Your task to perform on an android device: read, delete, or share a saved page in the chrome app Image 0: 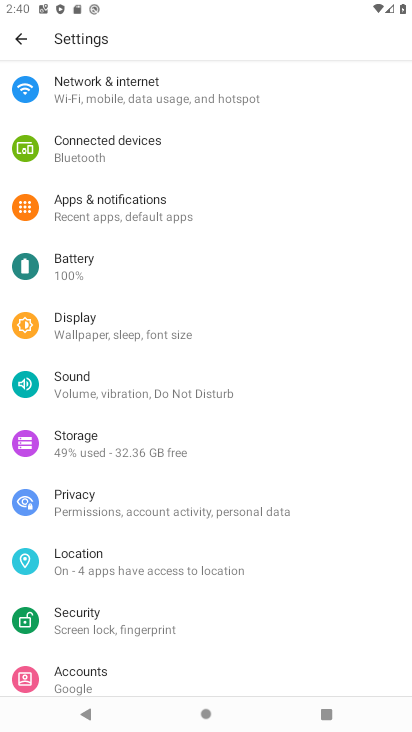
Step 0: press home button
Your task to perform on an android device: read, delete, or share a saved page in the chrome app Image 1: 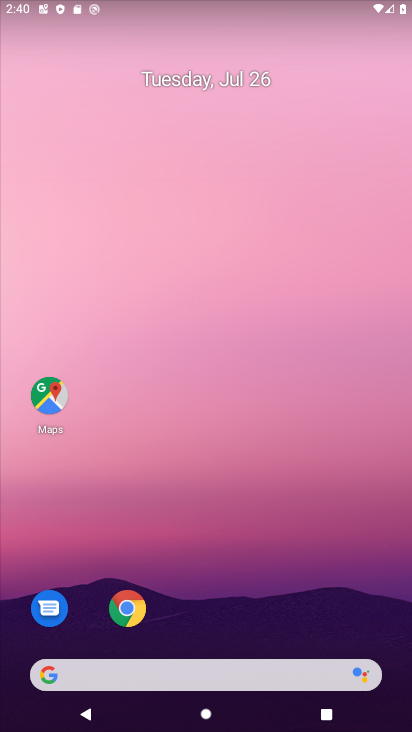
Step 1: click (209, 632)
Your task to perform on an android device: read, delete, or share a saved page in the chrome app Image 2: 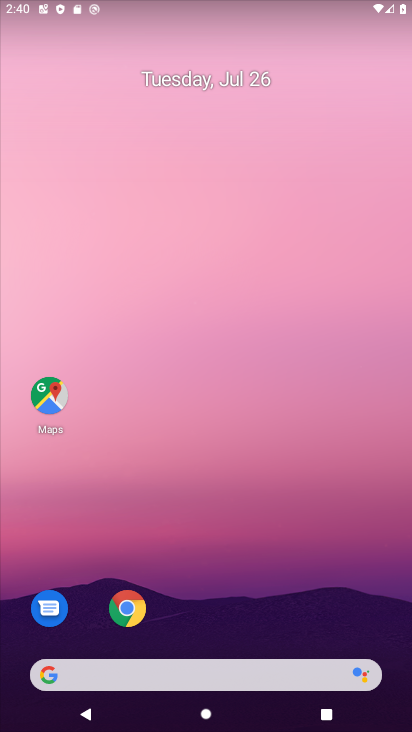
Step 2: click (119, 616)
Your task to perform on an android device: read, delete, or share a saved page in the chrome app Image 3: 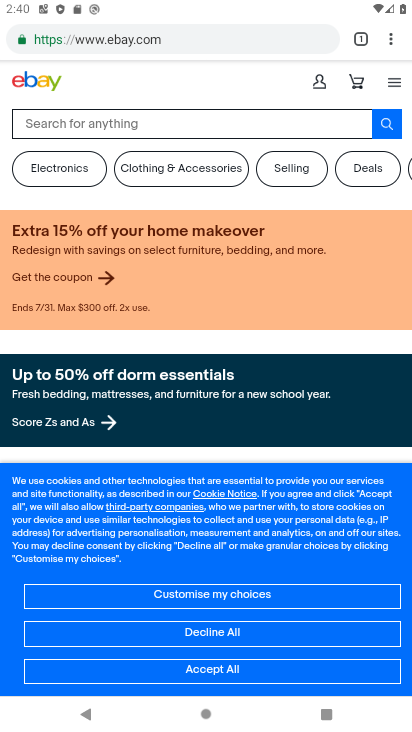
Step 3: click (383, 38)
Your task to perform on an android device: read, delete, or share a saved page in the chrome app Image 4: 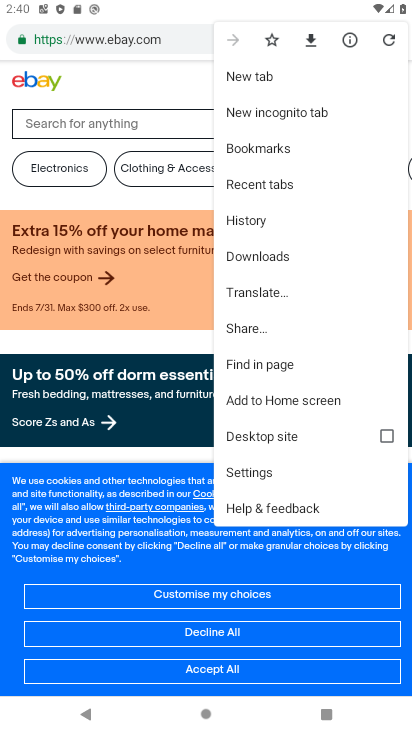
Step 4: click (267, 257)
Your task to perform on an android device: read, delete, or share a saved page in the chrome app Image 5: 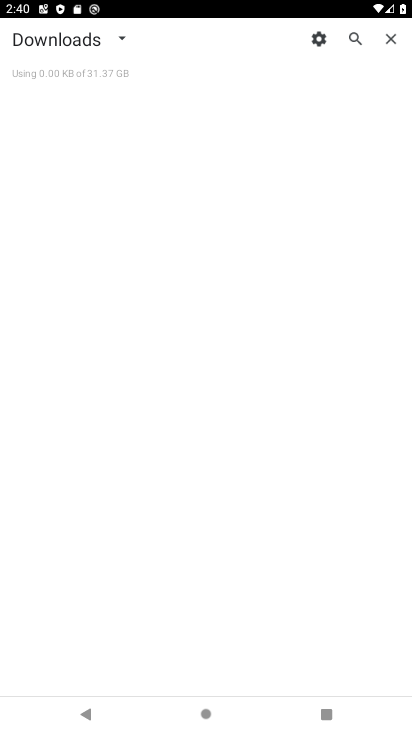
Step 5: task complete